Your task to perform on an android device: Open CNN.com Image 0: 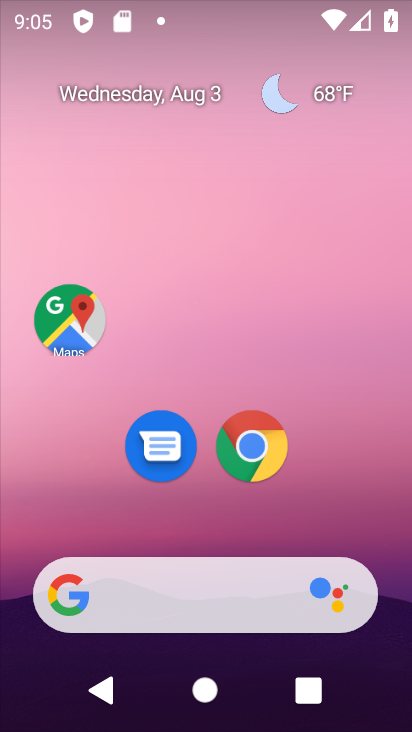
Step 0: click (257, 450)
Your task to perform on an android device: Open CNN.com Image 1: 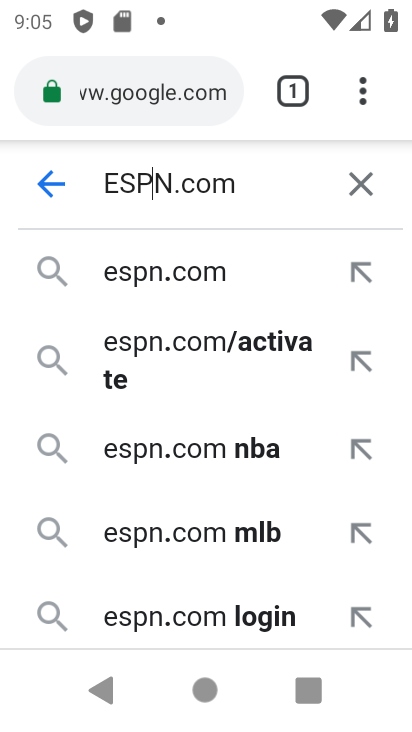
Step 1: click (213, 97)
Your task to perform on an android device: Open CNN.com Image 2: 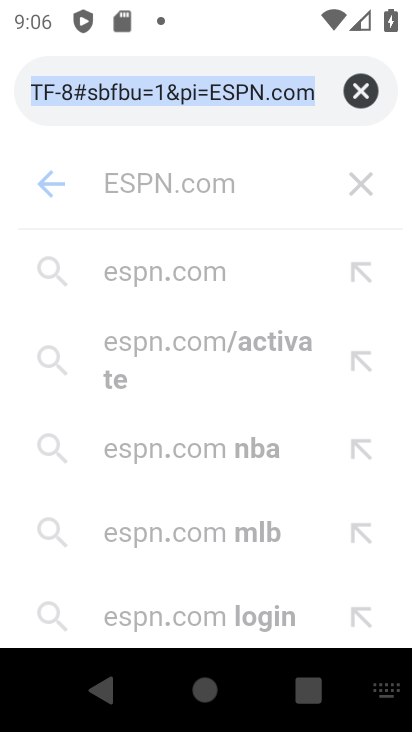
Step 2: click (354, 93)
Your task to perform on an android device: Open CNN.com Image 3: 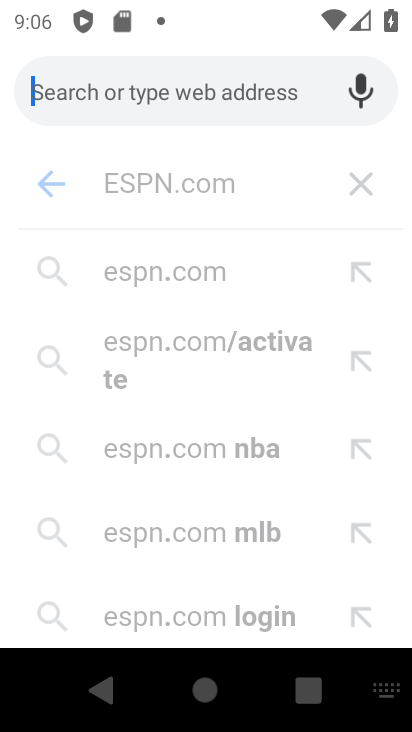
Step 3: type "CNN.com"
Your task to perform on an android device: Open CNN.com Image 4: 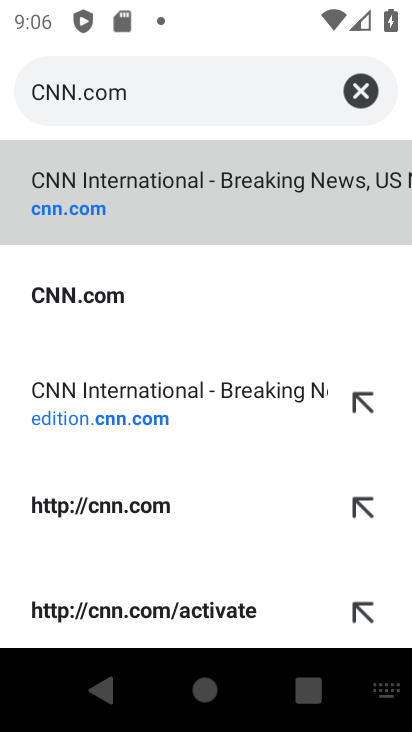
Step 4: click (102, 295)
Your task to perform on an android device: Open CNN.com Image 5: 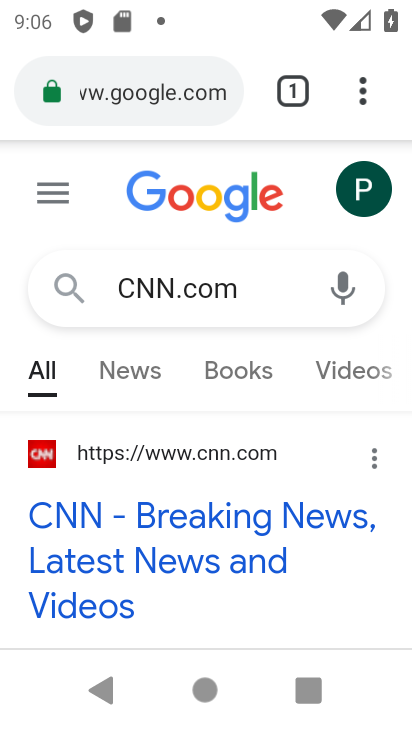
Step 5: task complete